Your task to perform on an android device: show emergency info Image 0: 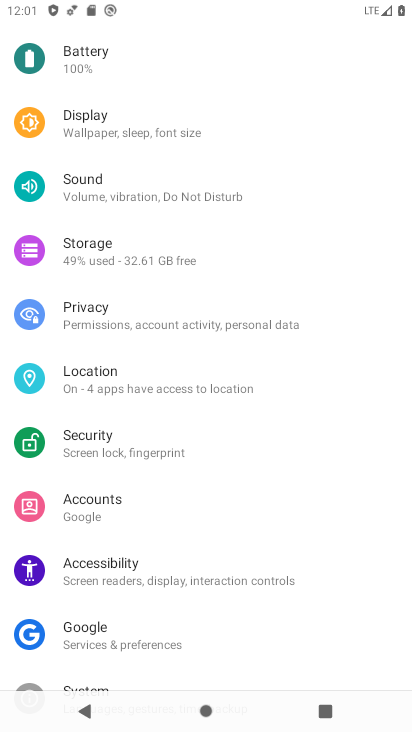
Step 0: press home button
Your task to perform on an android device: show emergency info Image 1: 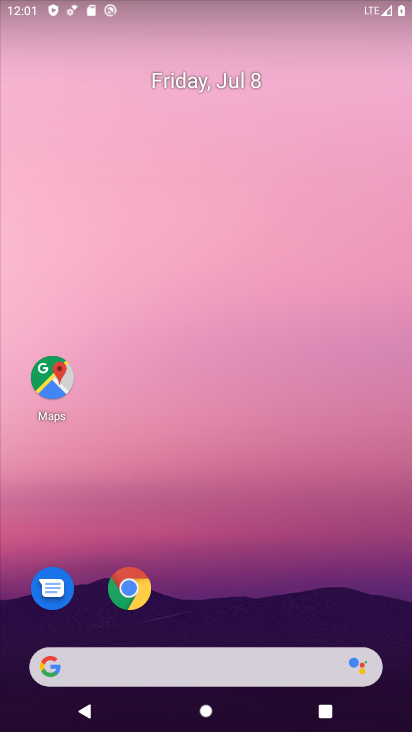
Step 1: drag from (235, 631) to (252, 66)
Your task to perform on an android device: show emergency info Image 2: 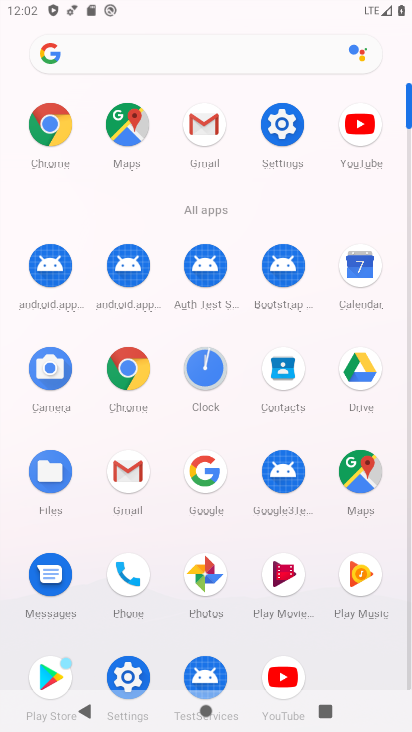
Step 2: click (282, 115)
Your task to perform on an android device: show emergency info Image 3: 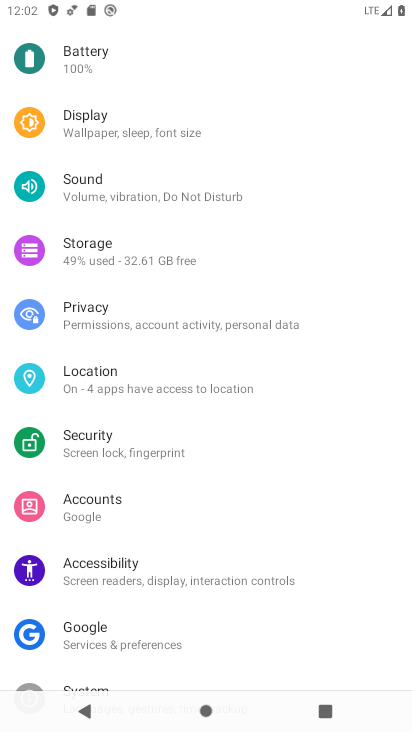
Step 3: drag from (164, 654) to (212, 84)
Your task to perform on an android device: show emergency info Image 4: 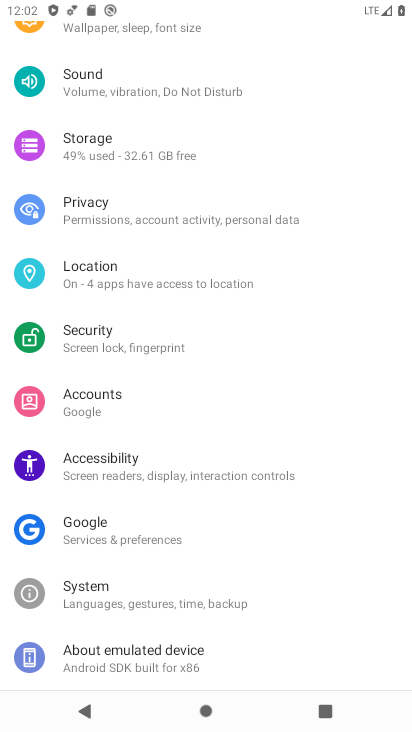
Step 4: click (204, 665)
Your task to perform on an android device: show emergency info Image 5: 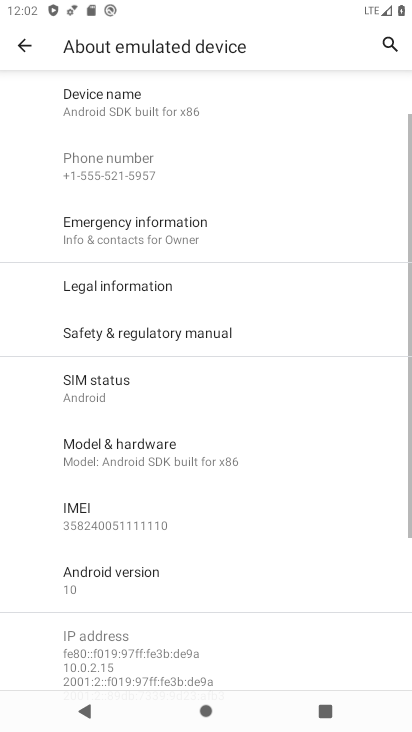
Step 5: click (171, 228)
Your task to perform on an android device: show emergency info Image 6: 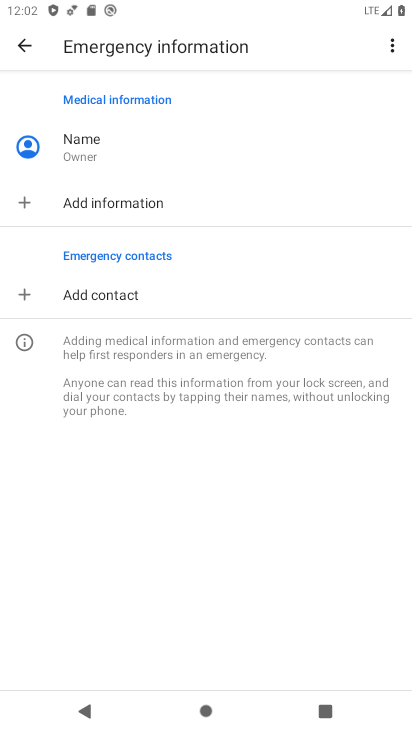
Step 6: task complete